Your task to perform on an android device: turn pop-ups off in chrome Image 0: 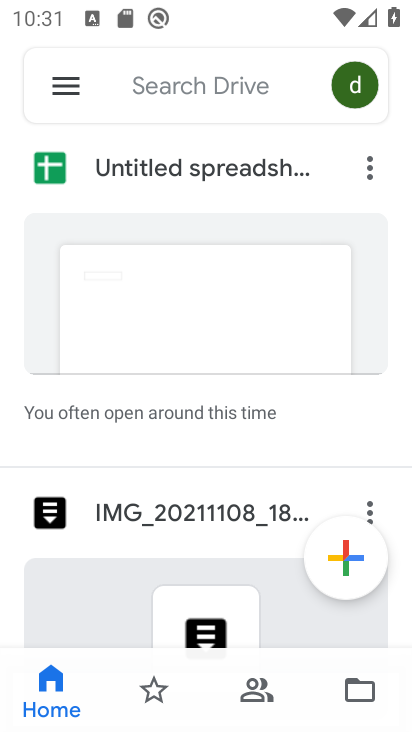
Step 0: press home button
Your task to perform on an android device: turn pop-ups off in chrome Image 1: 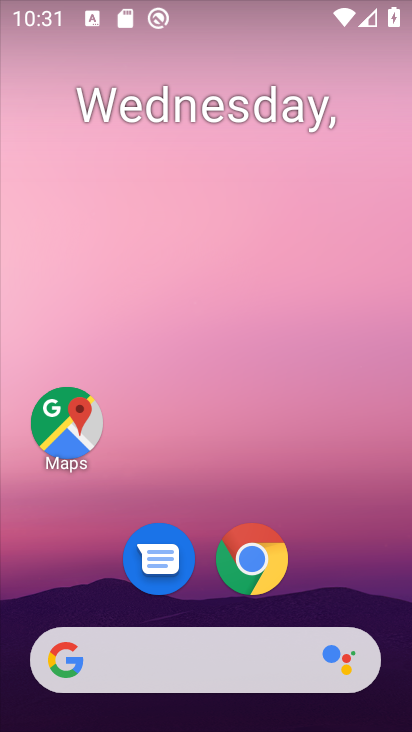
Step 1: drag from (222, 661) to (315, 113)
Your task to perform on an android device: turn pop-ups off in chrome Image 2: 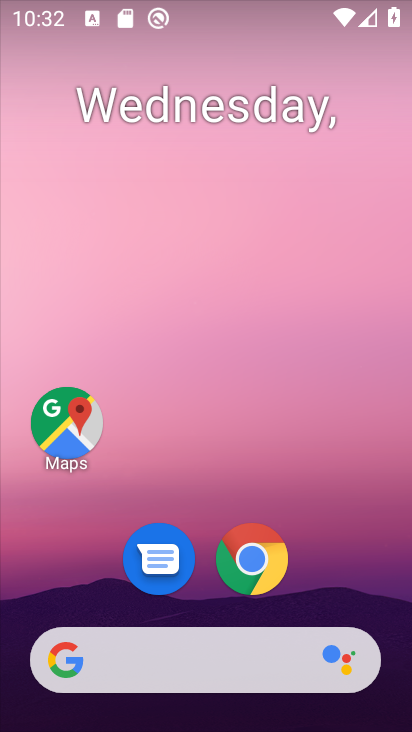
Step 2: click (270, 564)
Your task to perform on an android device: turn pop-ups off in chrome Image 3: 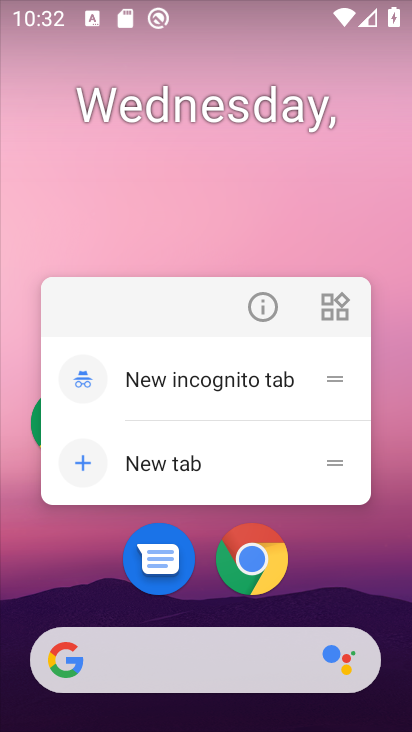
Step 3: click (266, 575)
Your task to perform on an android device: turn pop-ups off in chrome Image 4: 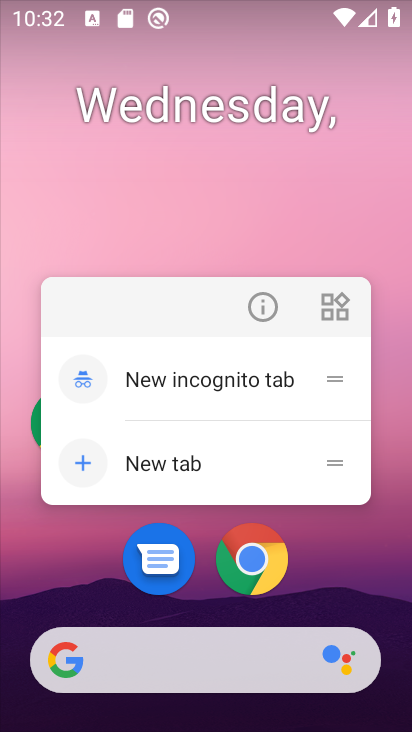
Step 4: click (265, 576)
Your task to perform on an android device: turn pop-ups off in chrome Image 5: 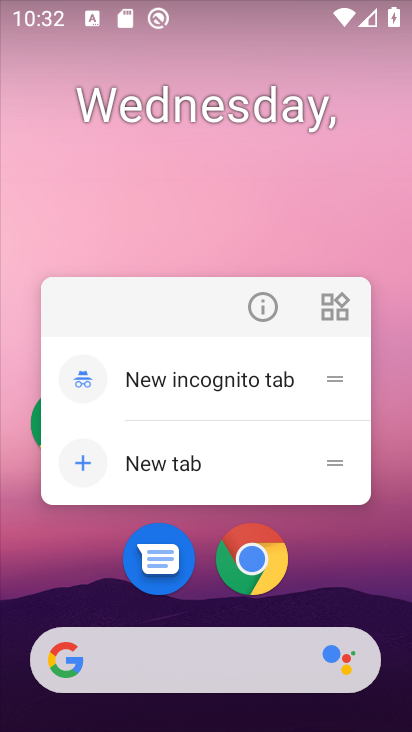
Step 5: click (243, 566)
Your task to perform on an android device: turn pop-ups off in chrome Image 6: 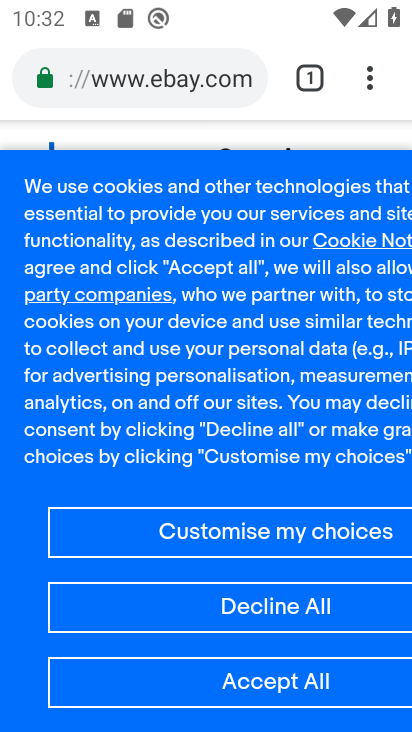
Step 6: click (379, 98)
Your task to perform on an android device: turn pop-ups off in chrome Image 7: 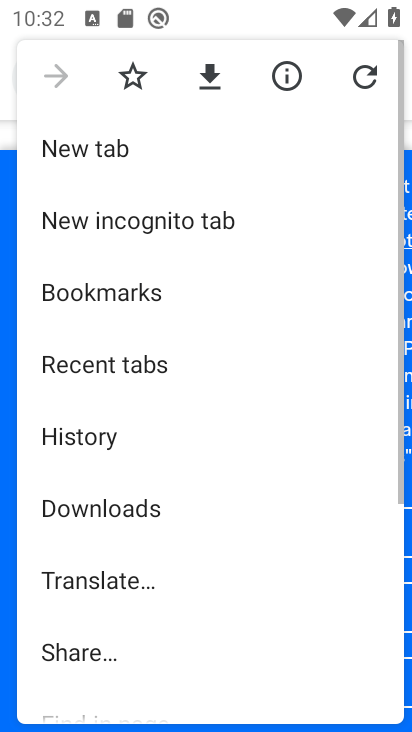
Step 7: drag from (208, 535) to (220, 204)
Your task to perform on an android device: turn pop-ups off in chrome Image 8: 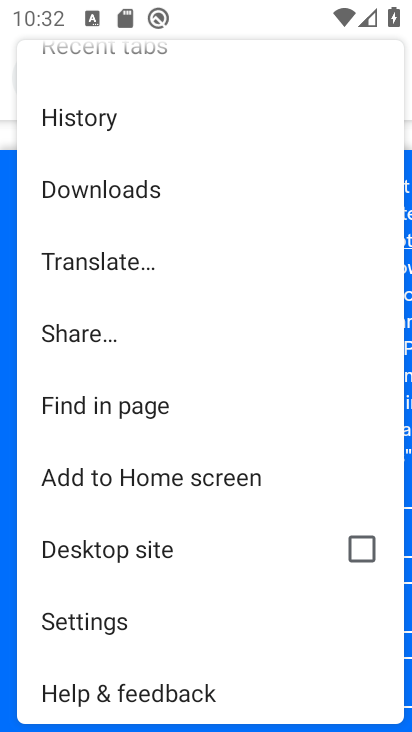
Step 8: click (142, 628)
Your task to perform on an android device: turn pop-ups off in chrome Image 9: 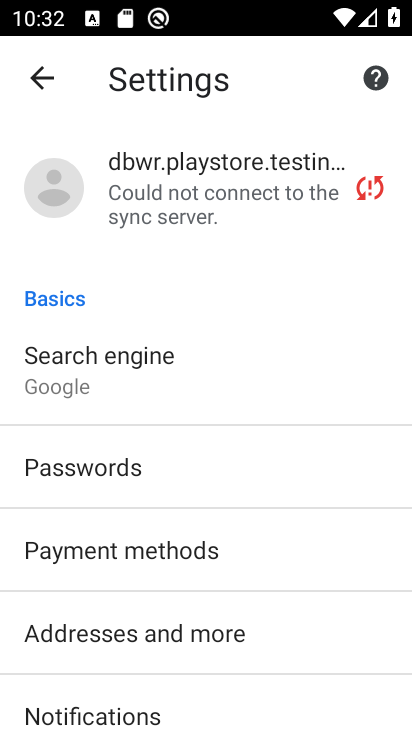
Step 9: drag from (210, 578) to (282, 101)
Your task to perform on an android device: turn pop-ups off in chrome Image 10: 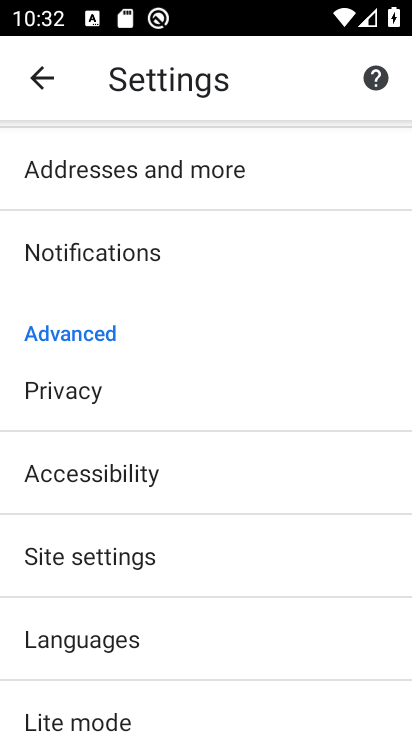
Step 10: click (179, 556)
Your task to perform on an android device: turn pop-ups off in chrome Image 11: 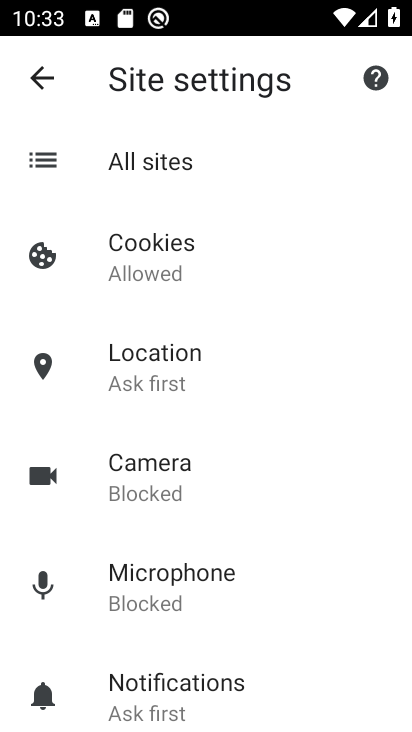
Step 11: drag from (195, 592) to (236, 256)
Your task to perform on an android device: turn pop-ups off in chrome Image 12: 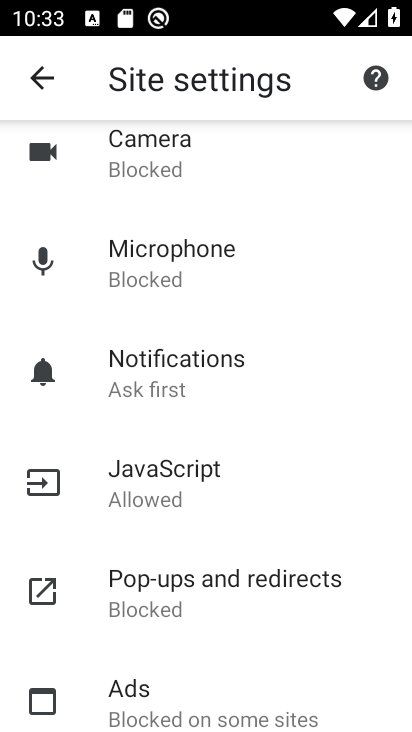
Step 12: drag from (238, 576) to (256, 305)
Your task to perform on an android device: turn pop-ups off in chrome Image 13: 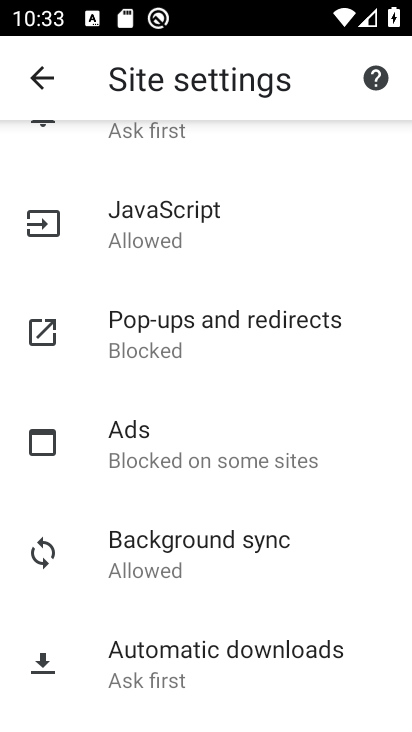
Step 13: click (230, 343)
Your task to perform on an android device: turn pop-ups off in chrome Image 14: 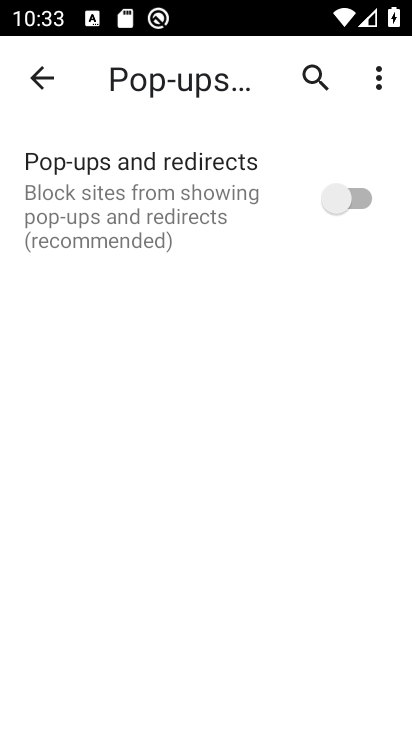
Step 14: task complete